Your task to perform on an android device: Open Google Image 0: 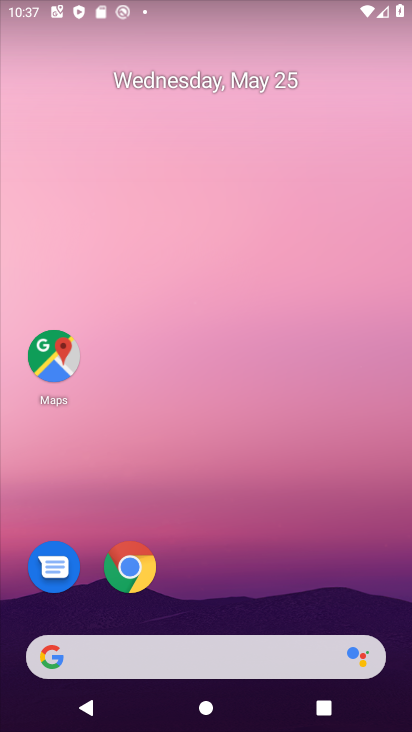
Step 0: drag from (302, 717) to (194, 5)
Your task to perform on an android device: Open Google Image 1: 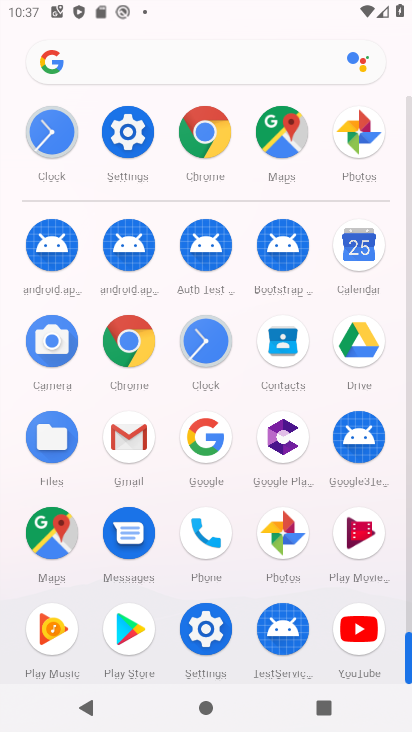
Step 1: click (208, 413)
Your task to perform on an android device: Open Google Image 2: 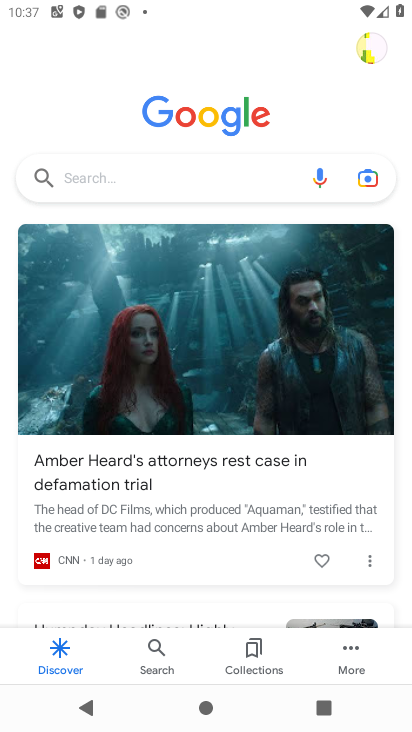
Step 2: click (198, 436)
Your task to perform on an android device: Open Google Image 3: 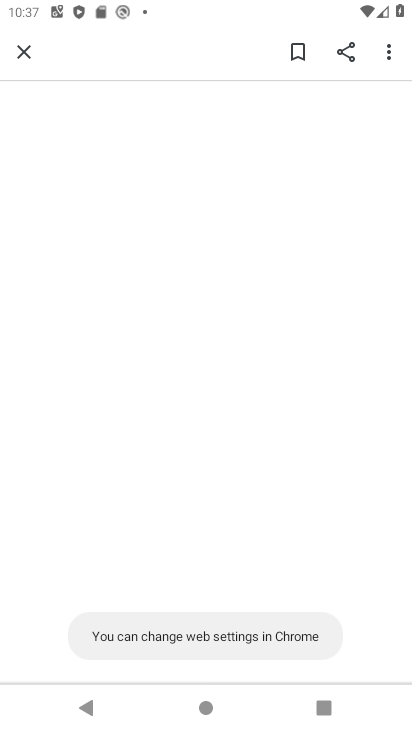
Step 3: click (347, 664)
Your task to perform on an android device: Open Google Image 4: 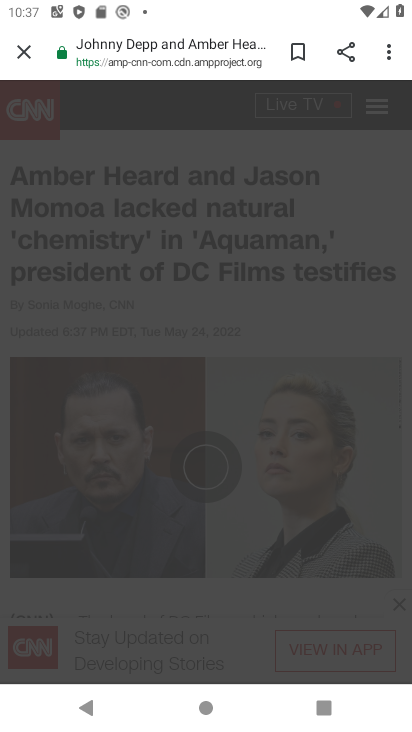
Step 4: task complete